Your task to perform on an android device: Search for sushi restaurants on Maps Image 0: 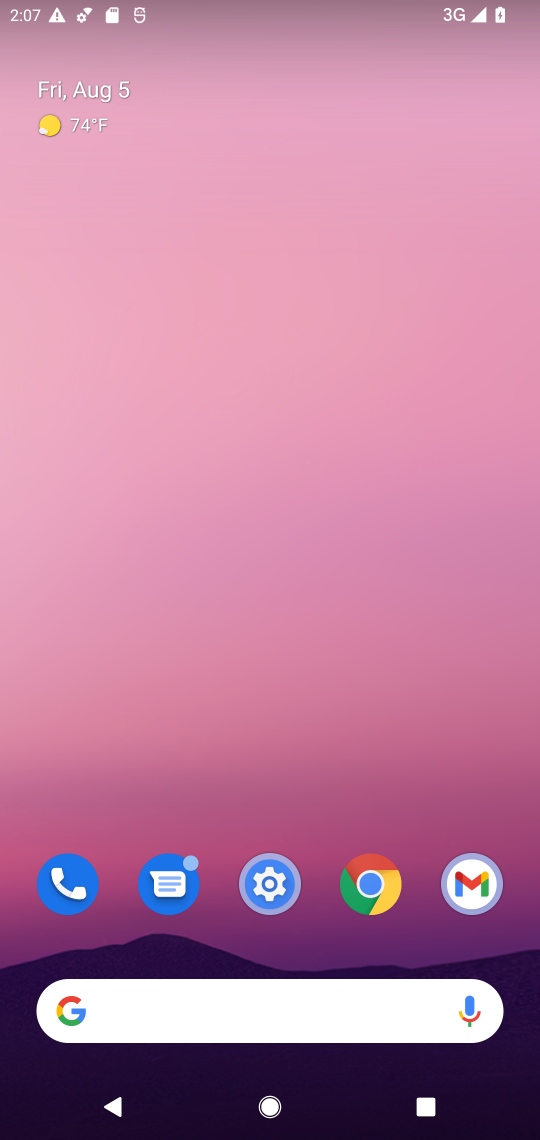
Step 0: drag from (382, 698) to (290, 17)
Your task to perform on an android device: Search for sushi restaurants on Maps Image 1: 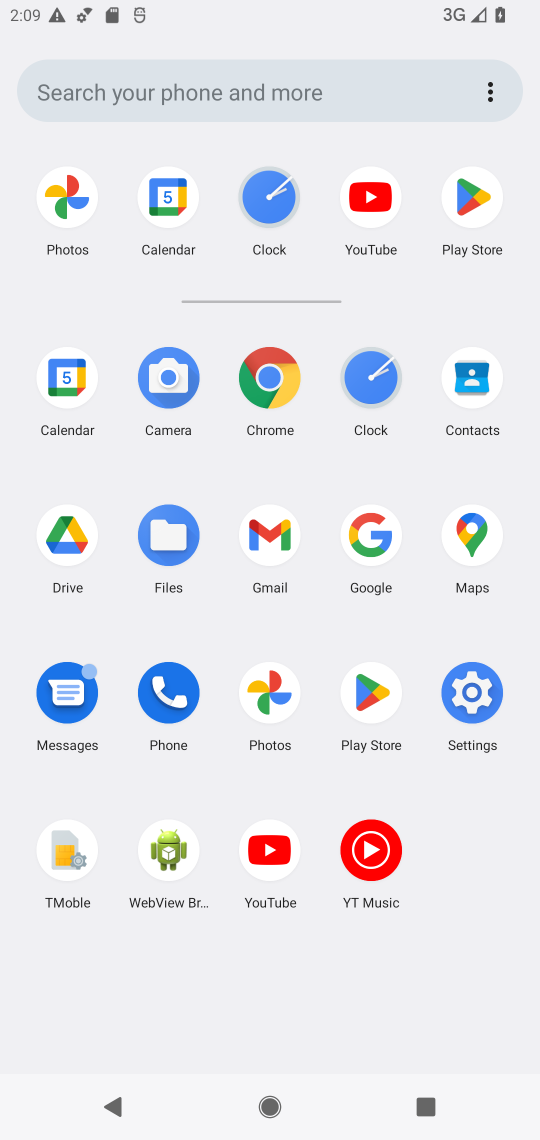
Step 1: click (485, 529)
Your task to perform on an android device: Search for sushi restaurants on Maps Image 2: 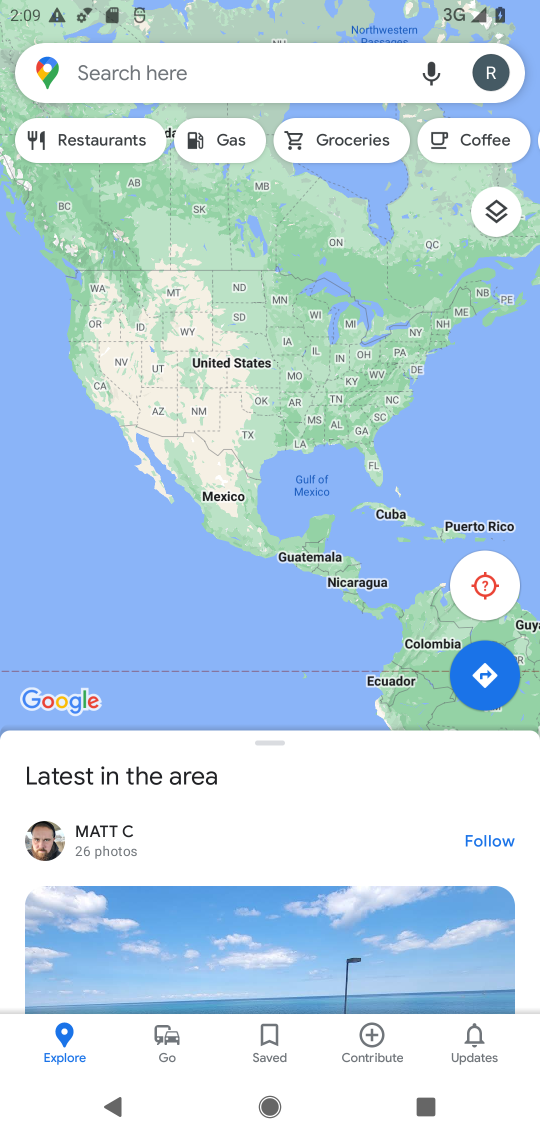
Step 2: click (205, 62)
Your task to perform on an android device: Search for sushi restaurants on Maps Image 3: 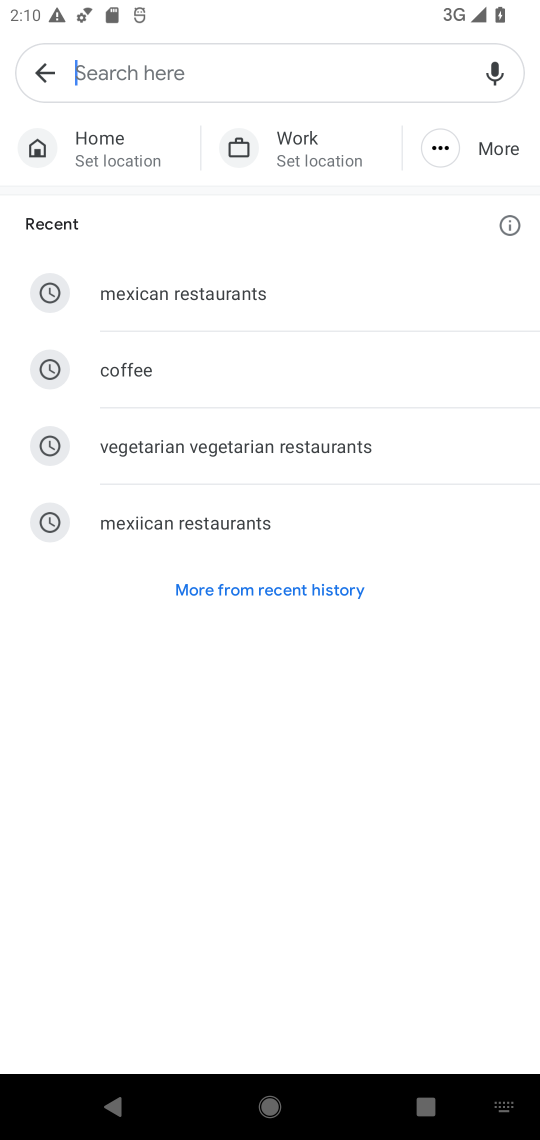
Step 3: type " sushi restaurants"
Your task to perform on an android device: Search for sushi restaurants on Maps Image 4: 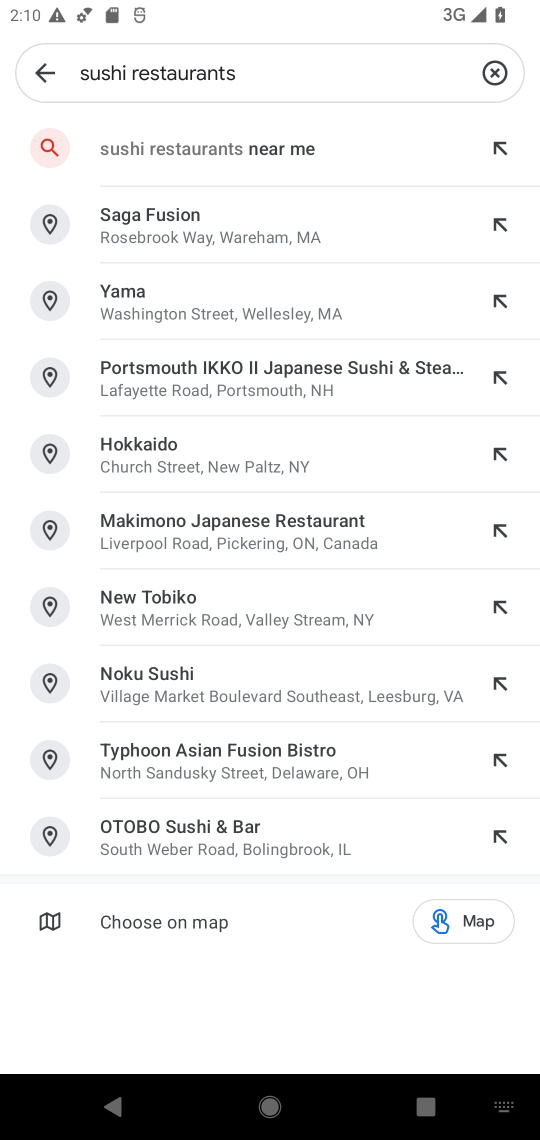
Step 4: task complete